Your task to perform on an android device: Open settings Image 0: 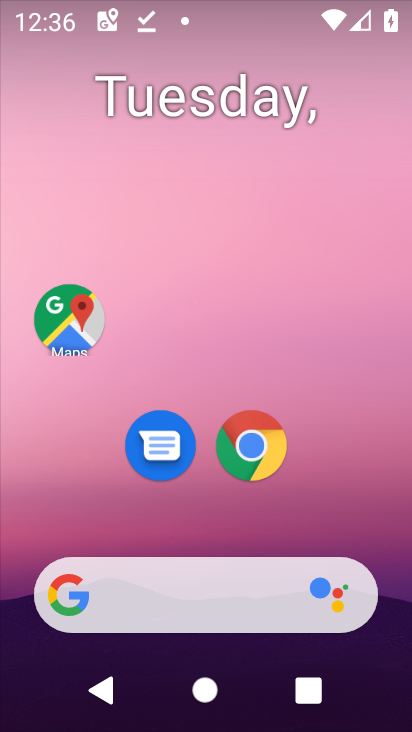
Step 0: drag from (318, 468) to (225, 123)
Your task to perform on an android device: Open settings Image 1: 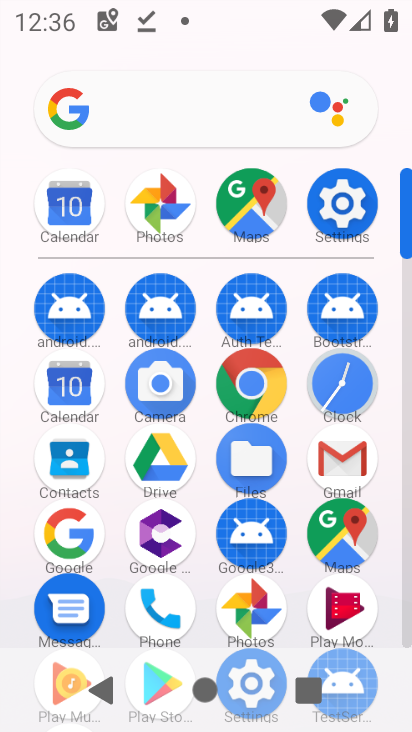
Step 1: click (340, 195)
Your task to perform on an android device: Open settings Image 2: 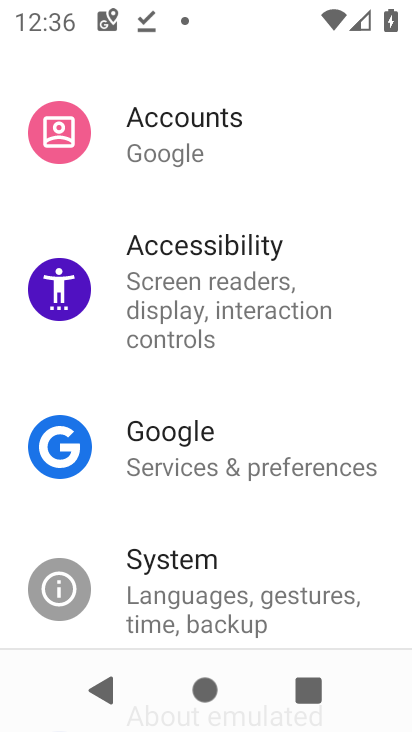
Step 2: task complete